Your task to perform on an android device: see sites visited before in the chrome app Image 0: 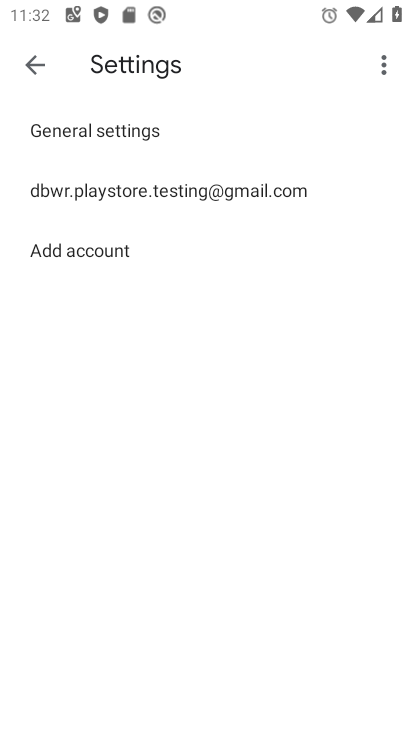
Step 0: press home button
Your task to perform on an android device: see sites visited before in the chrome app Image 1: 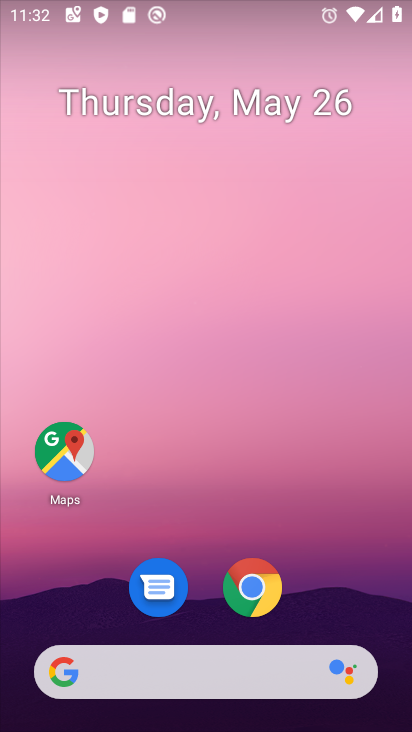
Step 1: drag from (234, 686) to (223, 181)
Your task to perform on an android device: see sites visited before in the chrome app Image 2: 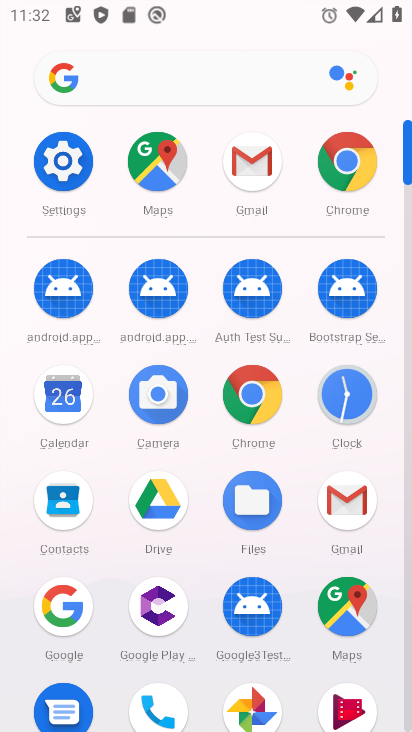
Step 2: click (340, 160)
Your task to perform on an android device: see sites visited before in the chrome app Image 3: 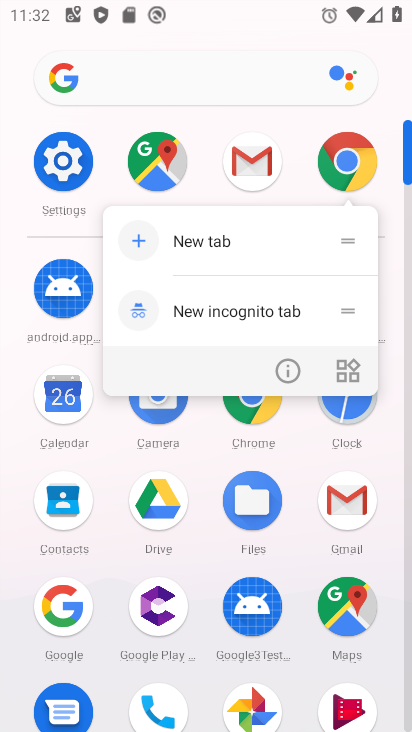
Step 3: click (349, 155)
Your task to perform on an android device: see sites visited before in the chrome app Image 4: 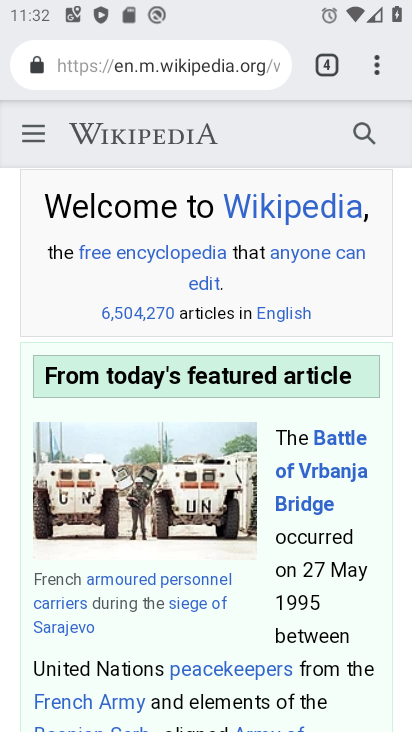
Step 4: click (378, 67)
Your task to perform on an android device: see sites visited before in the chrome app Image 5: 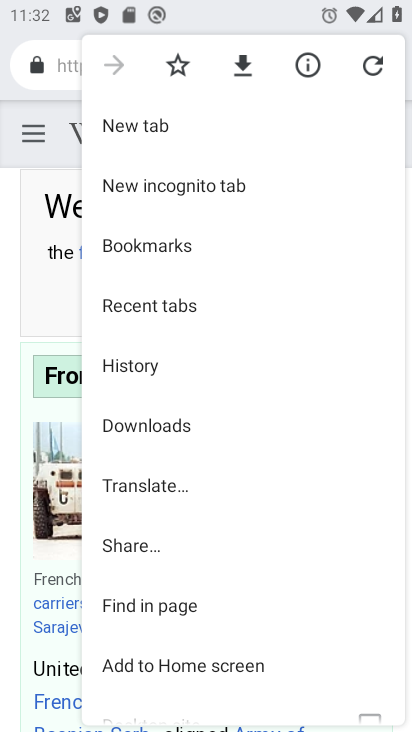
Step 5: drag from (180, 713) to (173, 400)
Your task to perform on an android device: see sites visited before in the chrome app Image 6: 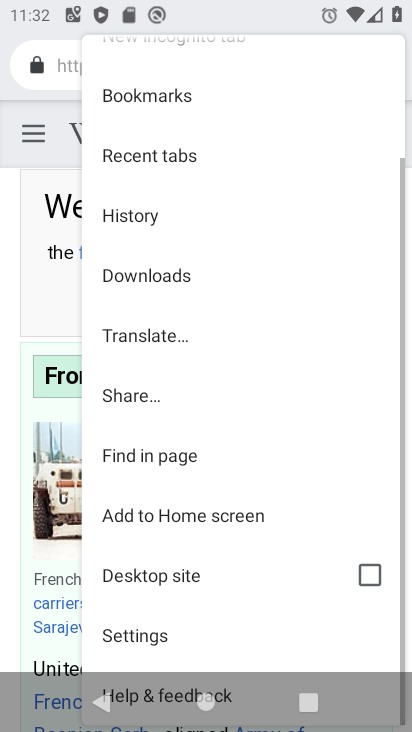
Step 6: click (150, 643)
Your task to perform on an android device: see sites visited before in the chrome app Image 7: 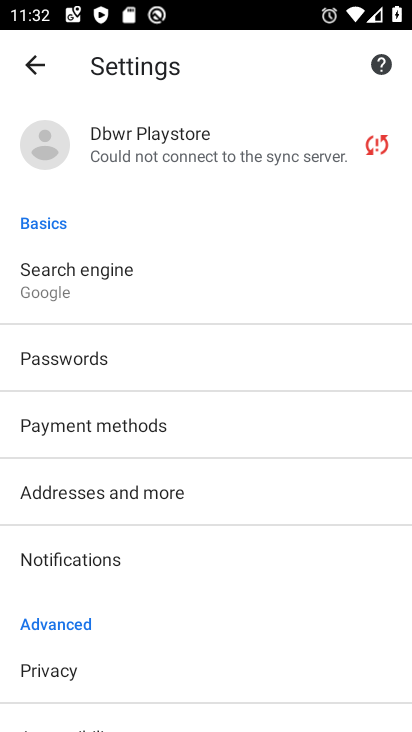
Step 7: drag from (131, 627) to (125, 319)
Your task to perform on an android device: see sites visited before in the chrome app Image 8: 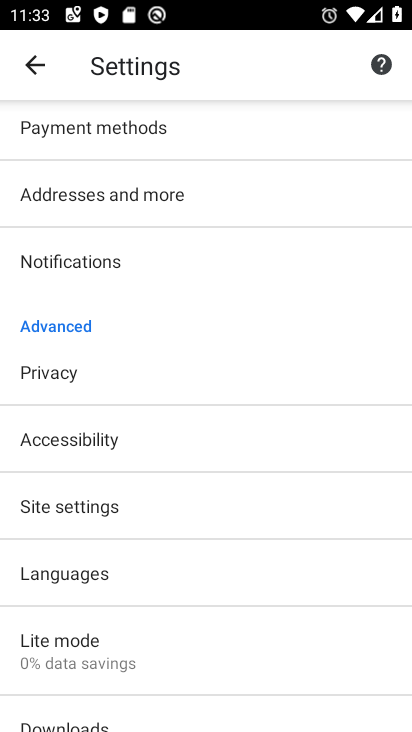
Step 8: click (91, 517)
Your task to perform on an android device: see sites visited before in the chrome app Image 9: 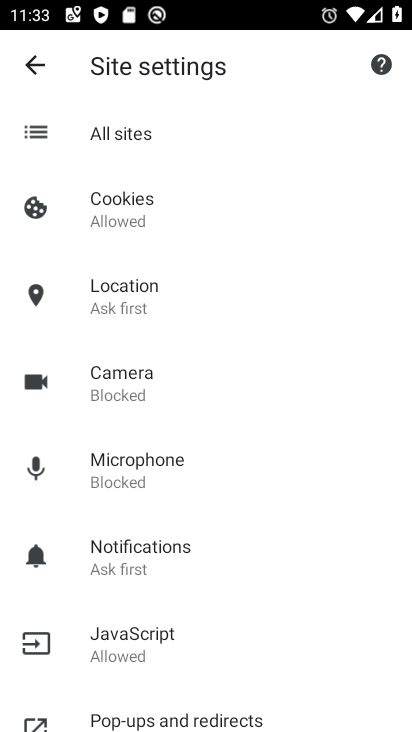
Step 9: click (166, 150)
Your task to perform on an android device: see sites visited before in the chrome app Image 10: 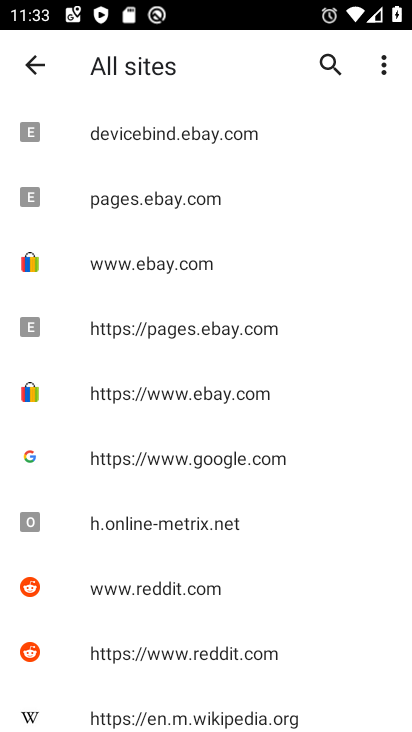
Step 10: task complete